Your task to perform on an android device: Search for pizza restaurants on Maps Image 0: 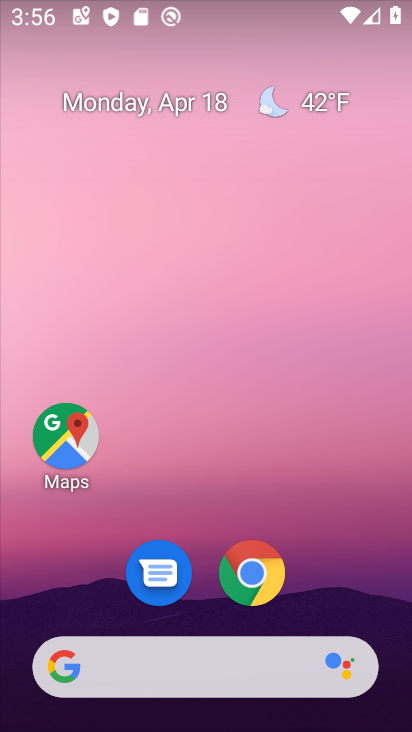
Step 0: click (70, 440)
Your task to perform on an android device: Search for pizza restaurants on Maps Image 1: 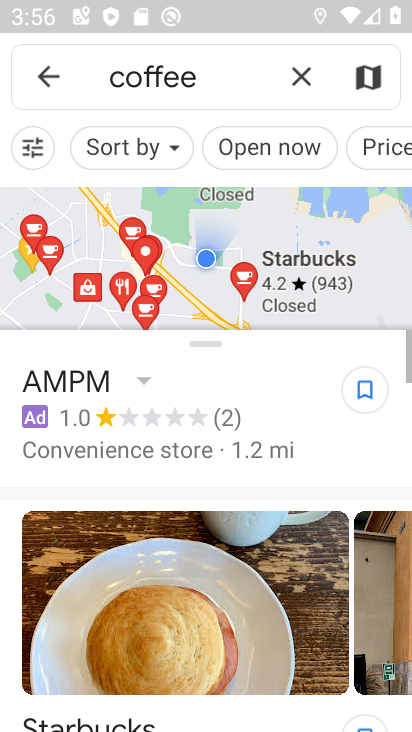
Step 1: click (296, 75)
Your task to perform on an android device: Search for pizza restaurants on Maps Image 2: 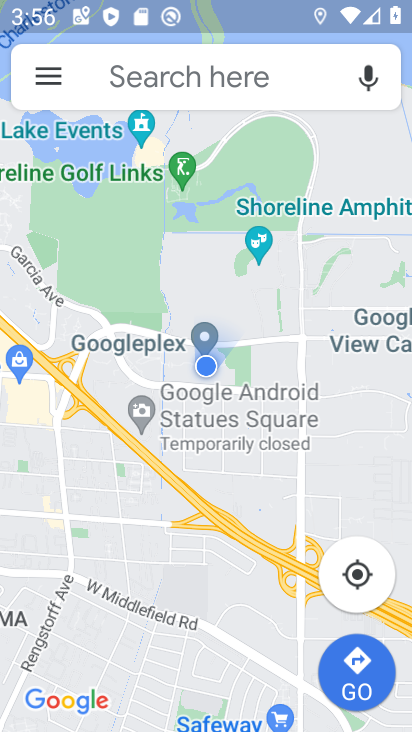
Step 2: click (189, 81)
Your task to perform on an android device: Search for pizza restaurants on Maps Image 3: 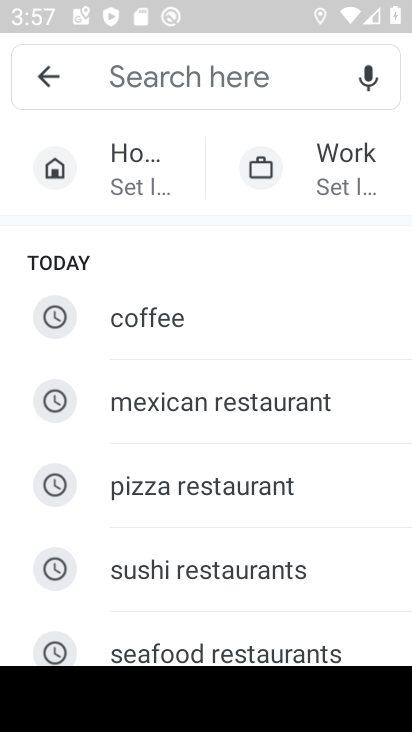
Step 3: click (227, 489)
Your task to perform on an android device: Search for pizza restaurants on Maps Image 4: 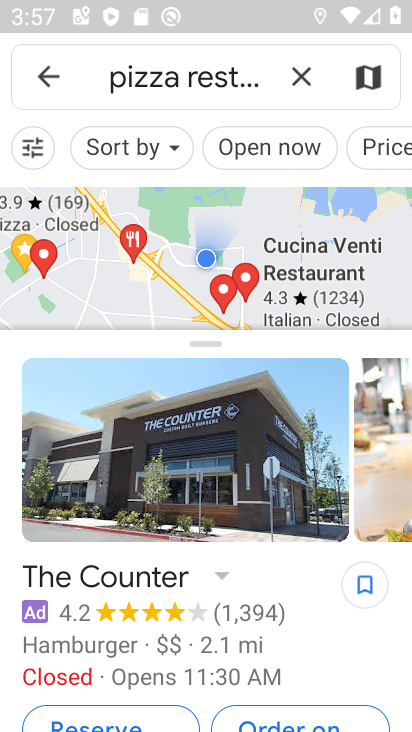
Step 4: task complete